Your task to perform on an android device: Open Google Chrome and click the shortcut for Amazon.com Image 0: 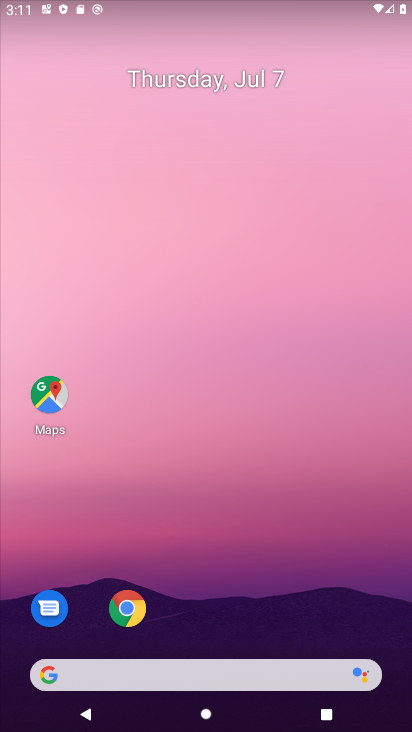
Step 0: click (129, 607)
Your task to perform on an android device: Open Google Chrome and click the shortcut for Amazon.com Image 1: 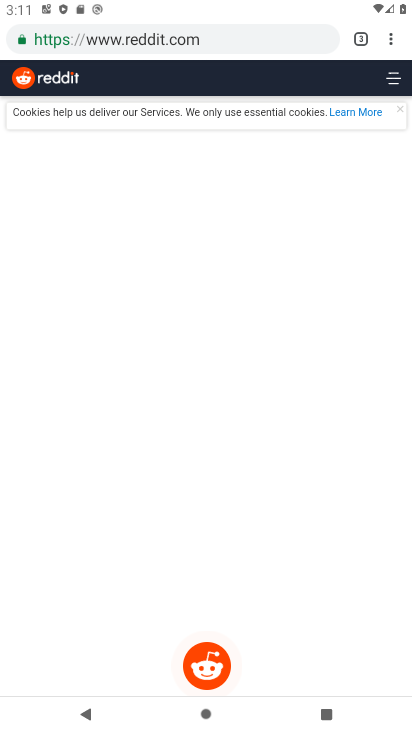
Step 1: click (391, 46)
Your task to perform on an android device: Open Google Chrome and click the shortcut for Amazon.com Image 2: 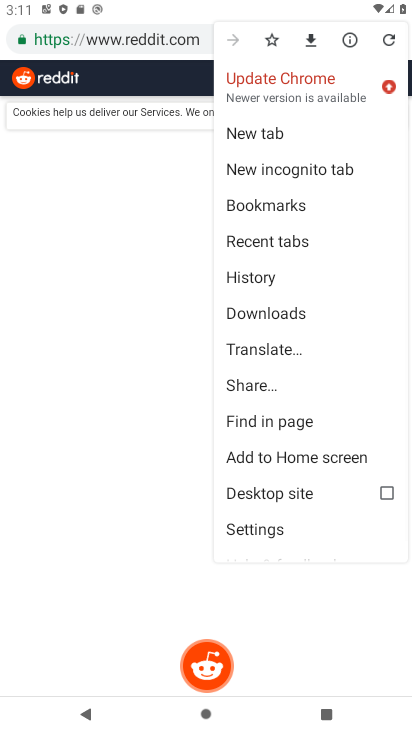
Step 2: click (261, 135)
Your task to perform on an android device: Open Google Chrome and click the shortcut for Amazon.com Image 3: 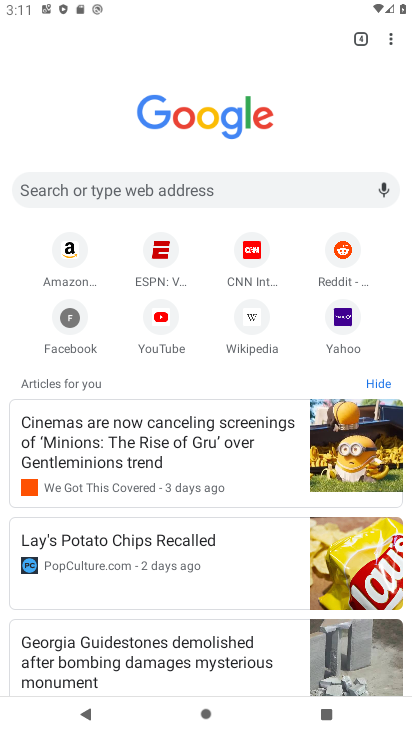
Step 3: click (69, 247)
Your task to perform on an android device: Open Google Chrome and click the shortcut for Amazon.com Image 4: 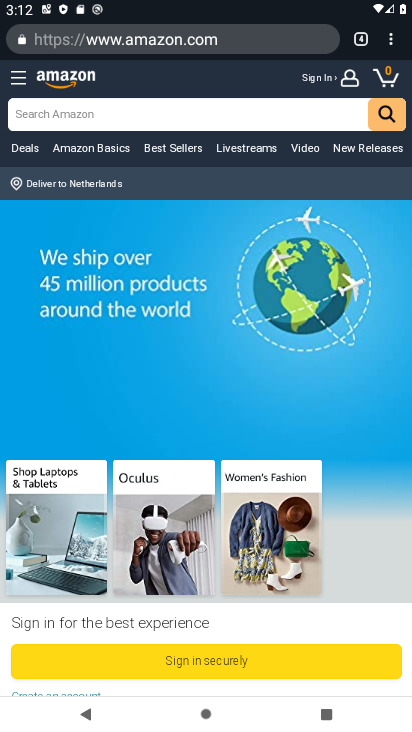
Step 4: task complete